Your task to perform on an android device: turn off priority inbox in the gmail app Image 0: 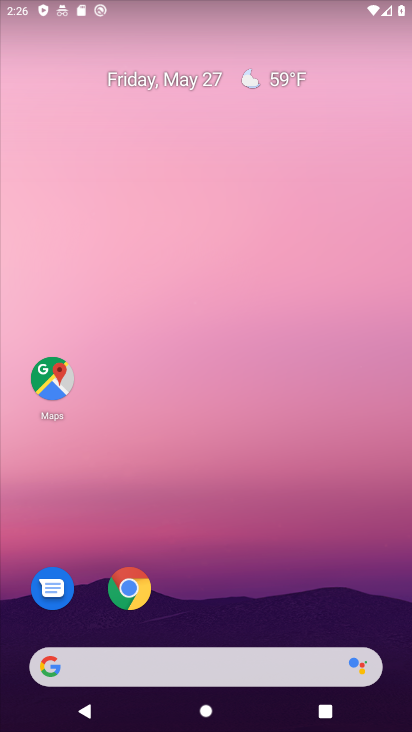
Step 0: drag from (273, 544) to (254, 216)
Your task to perform on an android device: turn off priority inbox in the gmail app Image 1: 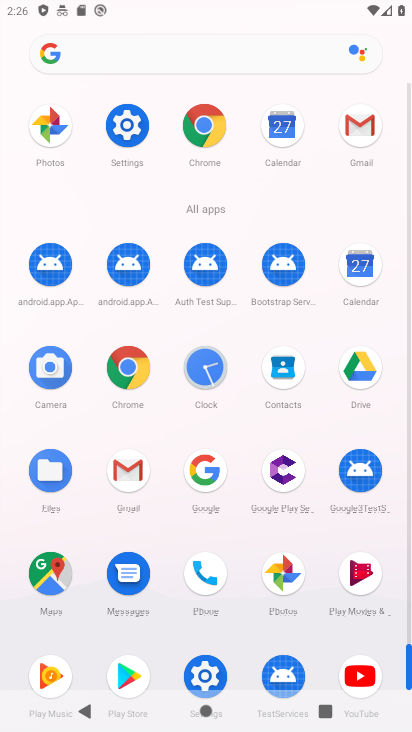
Step 1: click (130, 473)
Your task to perform on an android device: turn off priority inbox in the gmail app Image 2: 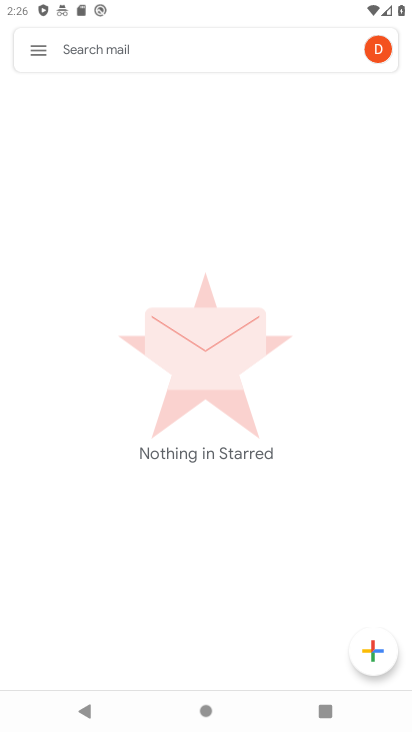
Step 2: click (44, 52)
Your task to perform on an android device: turn off priority inbox in the gmail app Image 3: 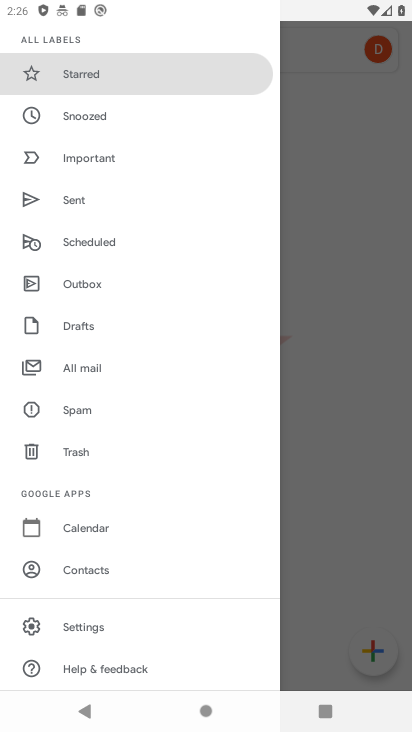
Step 3: click (84, 619)
Your task to perform on an android device: turn off priority inbox in the gmail app Image 4: 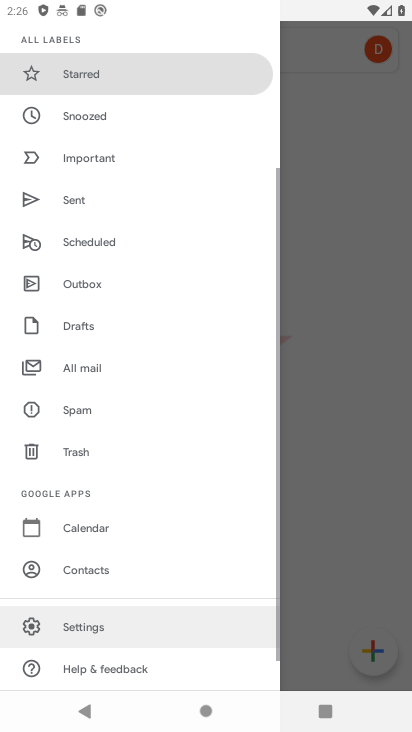
Step 4: click (84, 620)
Your task to perform on an android device: turn off priority inbox in the gmail app Image 5: 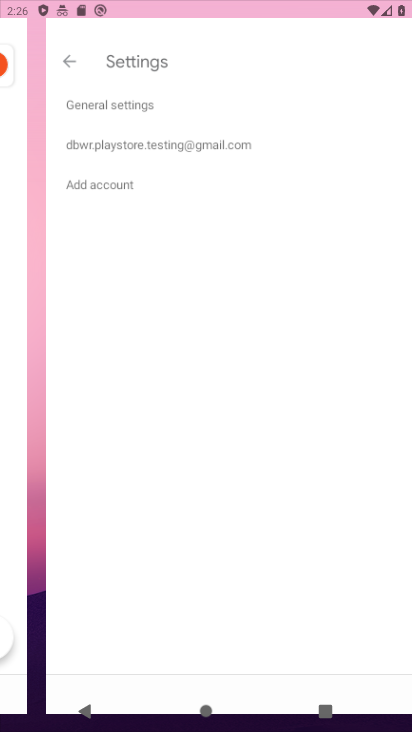
Step 5: click (84, 625)
Your task to perform on an android device: turn off priority inbox in the gmail app Image 6: 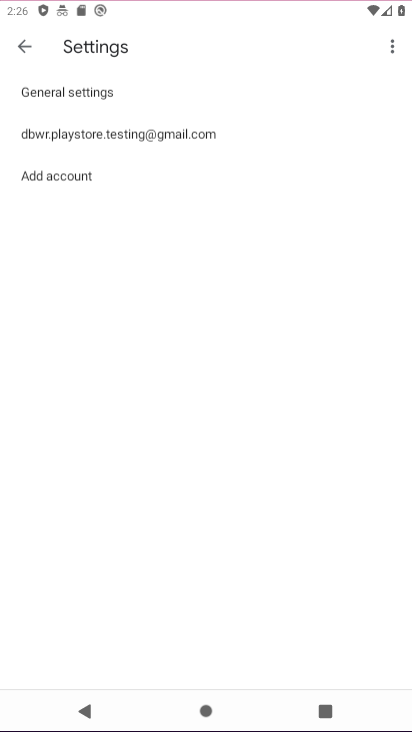
Step 6: click (84, 625)
Your task to perform on an android device: turn off priority inbox in the gmail app Image 7: 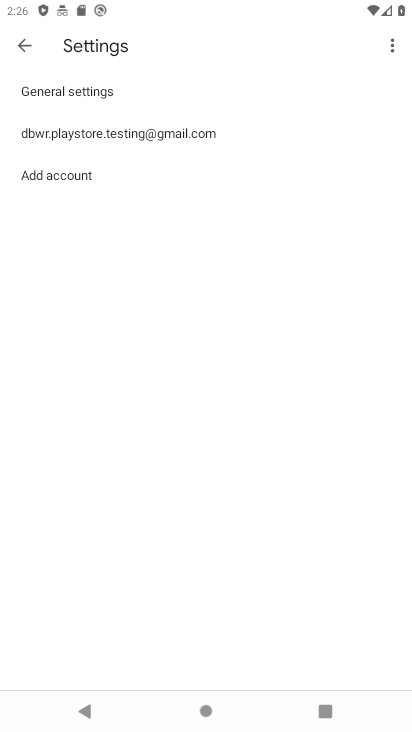
Step 7: click (90, 133)
Your task to perform on an android device: turn off priority inbox in the gmail app Image 8: 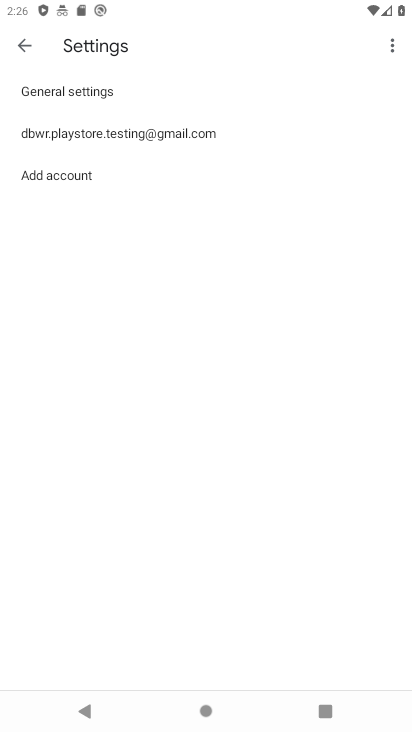
Step 8: click (89, 134)
Your task to perform on an android device: turn off priority inbox in the gmail app Image 9: 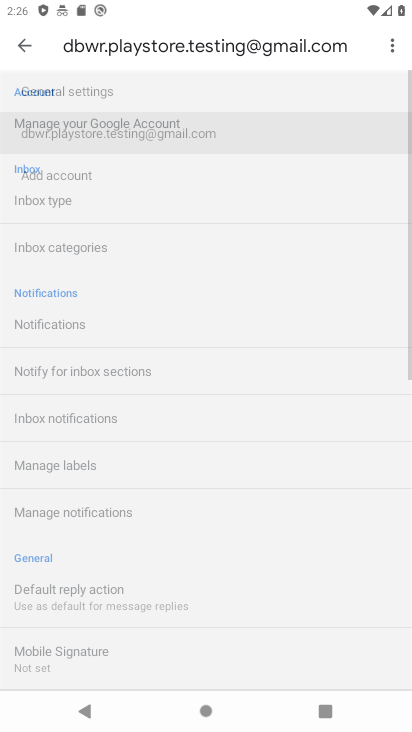
Step 9: click (89, 134)
Your task to perform on an android device: turn off priority inbox in the gmail app Image 10: 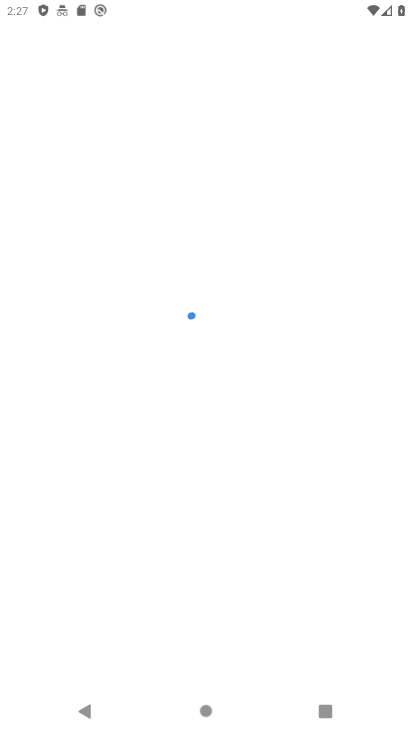
Step 10: press back button
Your task to perform on an android device: turn off priority inbox in the gmail app Image 11: 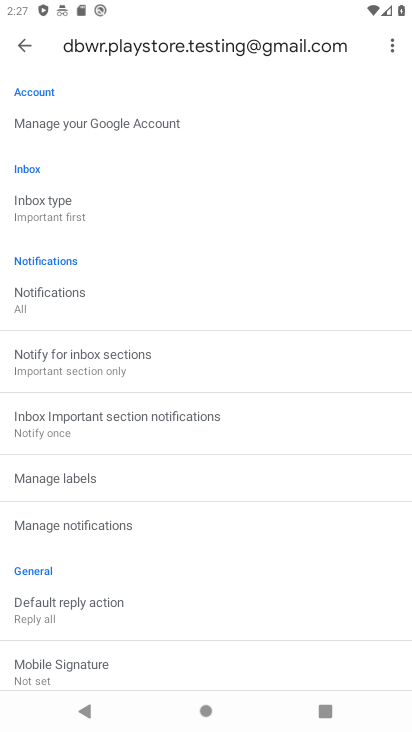
Step 11: click (33, 200)
Your task to perform on an android device: turn off priority inbox in the gmail app Image 12: 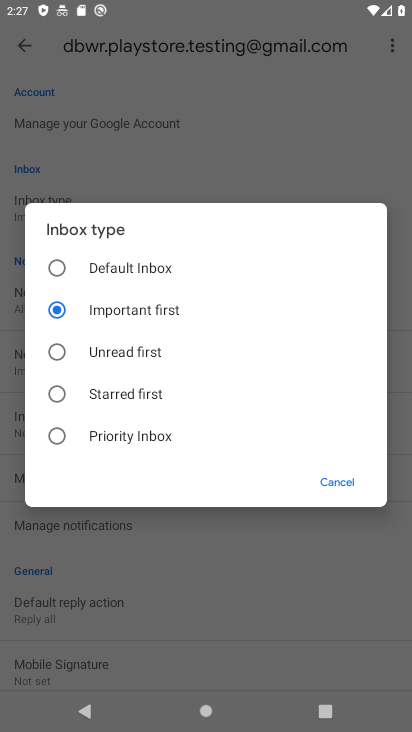
Step 12: click (53, 265)
Your task to perform on an android device: turn off priority inbox in the gmail app Image 13: 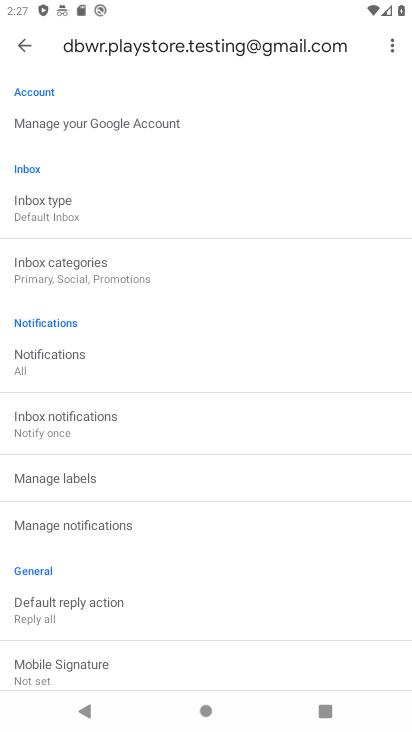
Step 13: task complete